Your task to perform on an android device: Turn on the flashlight Image 0: 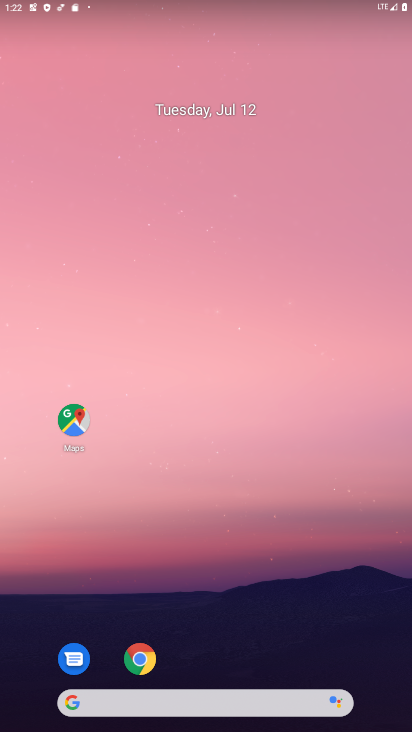
Step 0: drag from (199, 726) to (188, 117)
Your task to perform on an android device: Turn on the flashlight Image 1: 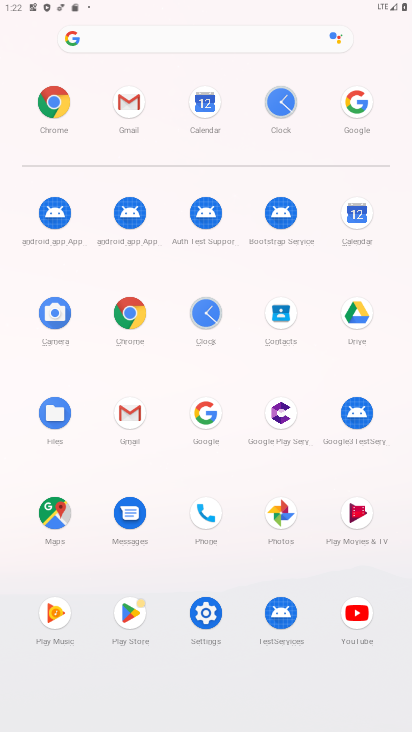
Step 1: click (200, 614)
Your task to perform on an android device: Turn on the flashlight Image 2: 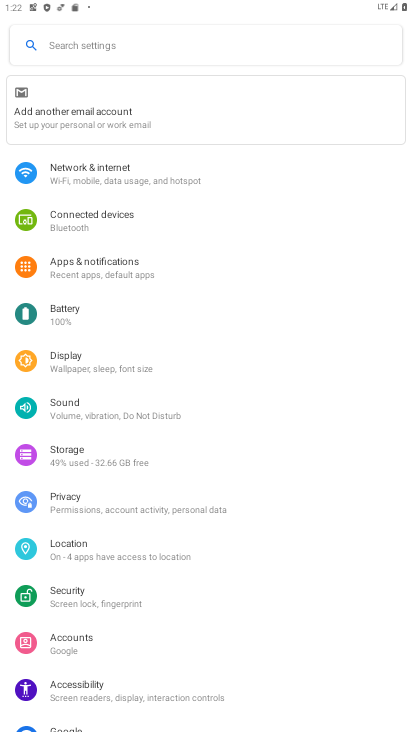
Step 2: task complete